Your task to perform on an android device: Open privacy settings Image 0: 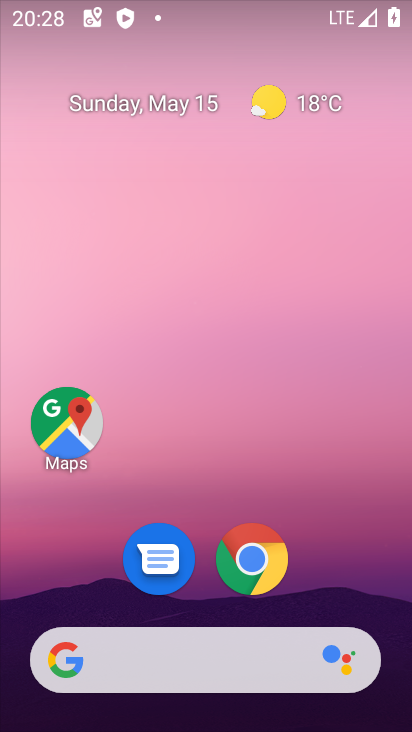
Step 0: drag from (288, 477) to (192, 67)
Your task to perform on an android device: Open privacy settings Image 1: 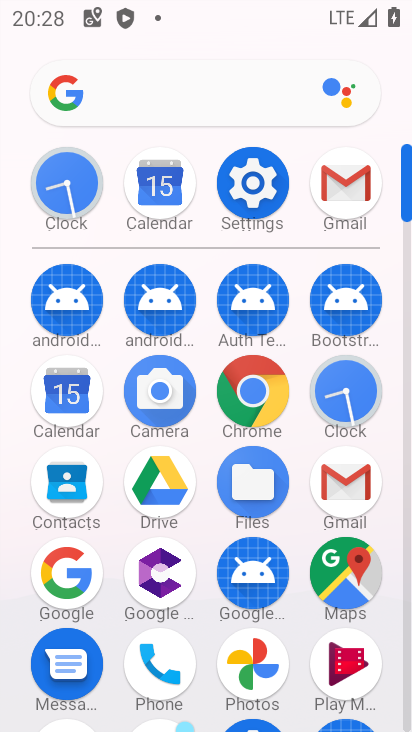
Step 1: click (252, 187)
Your task to perform on an android device: Open privacy settings Image 2: 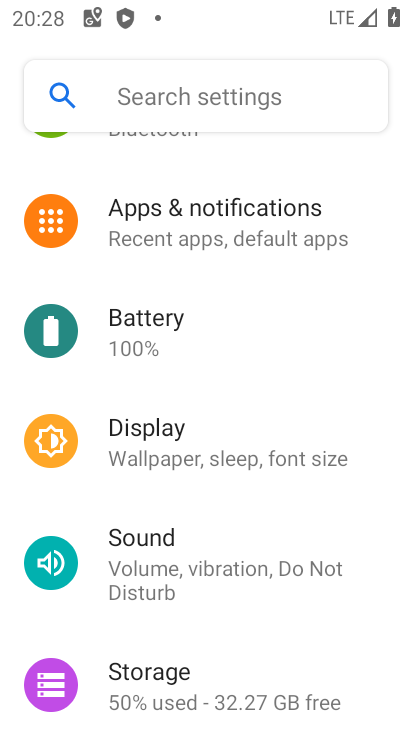
Step 2: drag from (239, 374) to (282, 730)
Your task to perform on an android device: Open privacy settings Image 3: 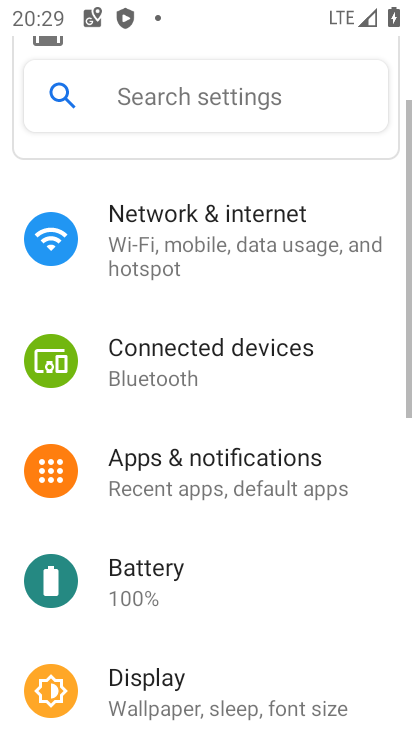
Step 3: drag from (250, 600) to (176, 307)
Your task to perform on an android device: Open privacy settings Image 4: 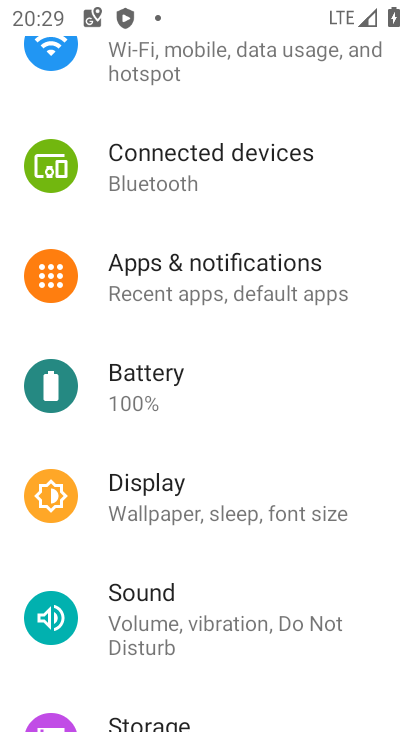
Step 4: drag from (242, 563) to (204, 317)
Your task to perform on an android device: Open privacy settings Image 5: 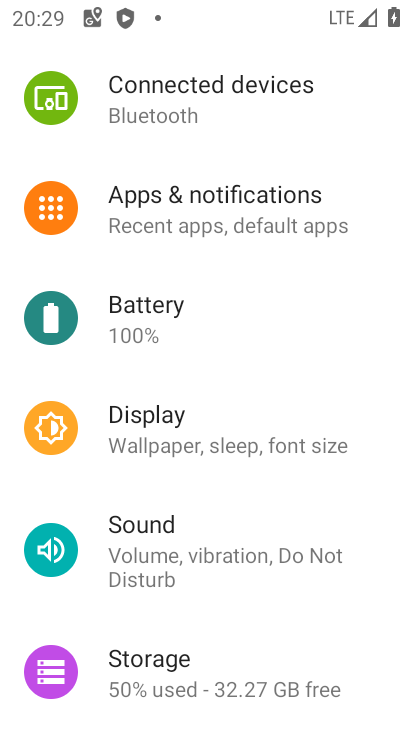
Step 5: drag from (205, 577) to (187, 331)
Your task to perform on an android device: Open privacy settings Image 6: 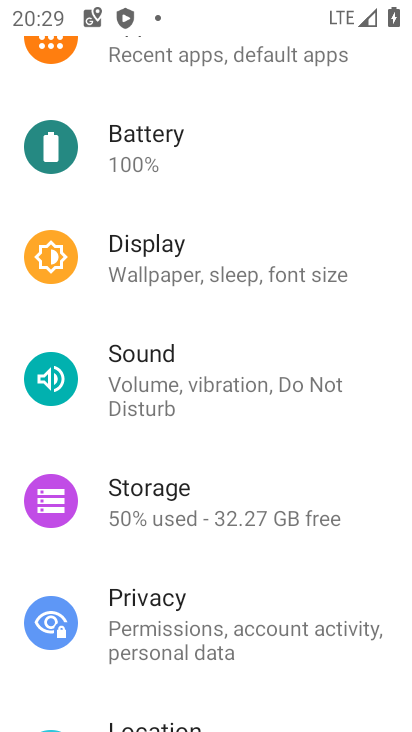
Step 6: click (159, 597)
Your task to perform on an android device: Open privacy settings Image 7: 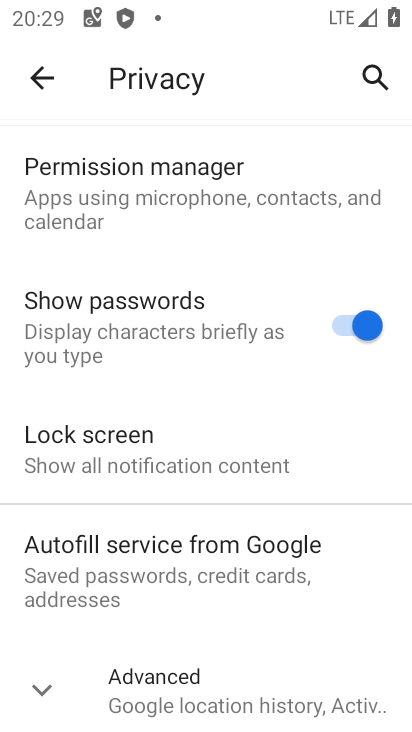
Step 7: task complete